Your task to perform on an android device: delete a single message in the gmail app Image 0: 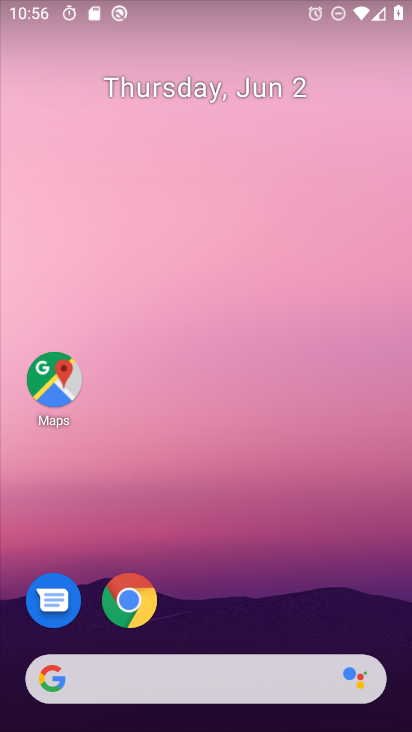
Step 0: drag from (223, 598) to (228, 101)
Your task to perform on an android device: delete a single message in the gmail app Image 1: 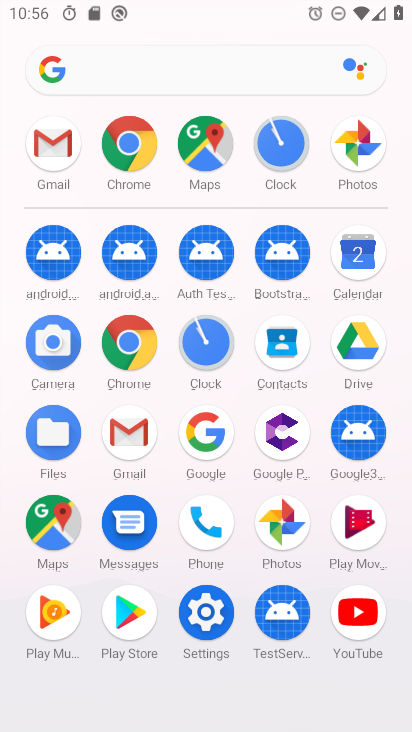
Step 1: click (129, 426)
Your task to perform on an android device: delete a single message in the gmail app Image 2: 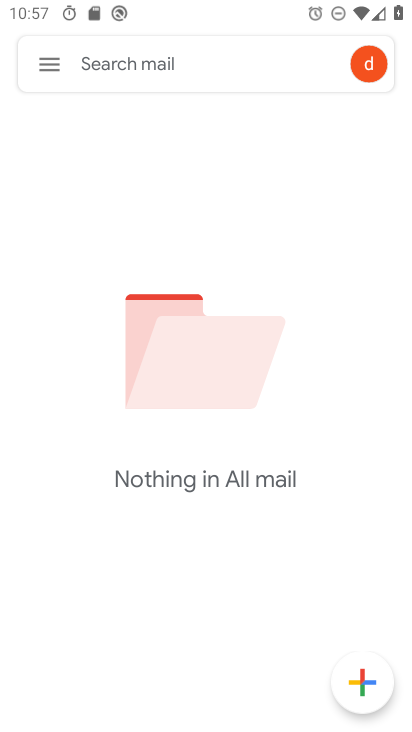
Step 2: task complete